Your task to perform on an android device: find snoozed emails in the gmail app Image 0: 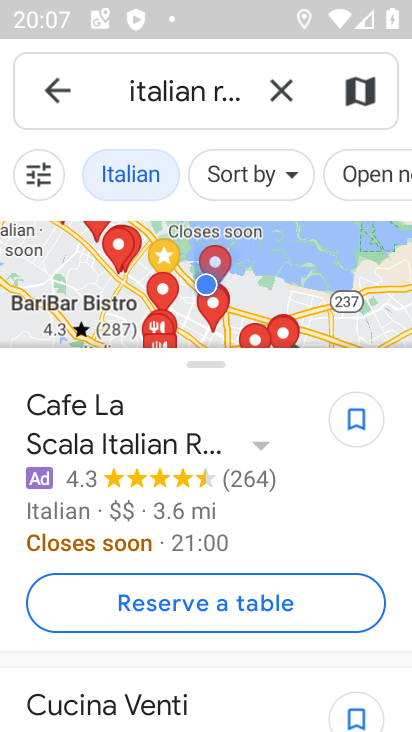
Step 0: press home button
Your task to perform on an android device: find snoozed emails in the gmail app Image 1: 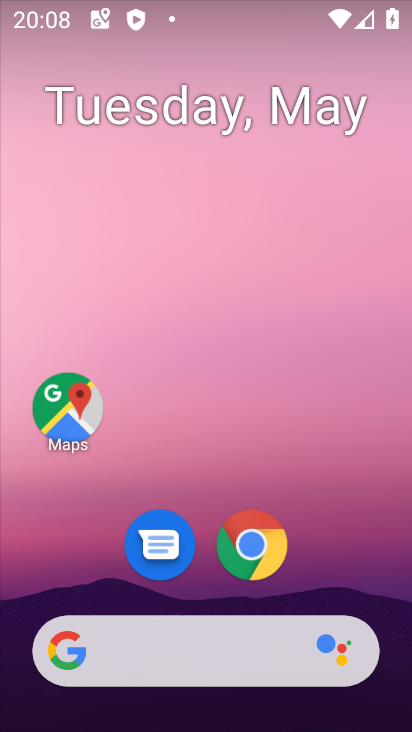
Step 1: drag from (324, 588) to (355, 108)
Your task to perform on an android device: find snoozed emails in the gmail app Image 2: 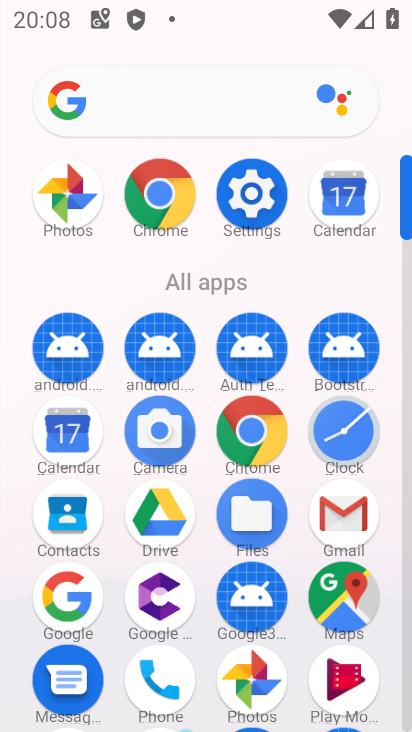
Step 2: click (334, 512)
Your task to perform on an android device: find snoozed emails in the gmail app Image 3: 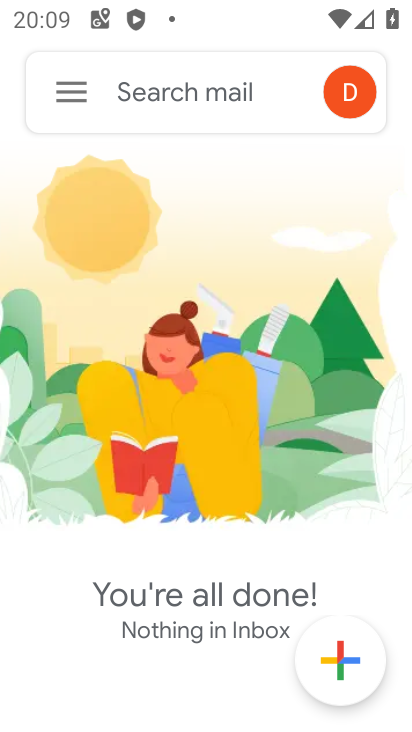
Step 3: click (77, 86)
Your task to perform on an android device: find snoozed emails in the gmail app Image 4: 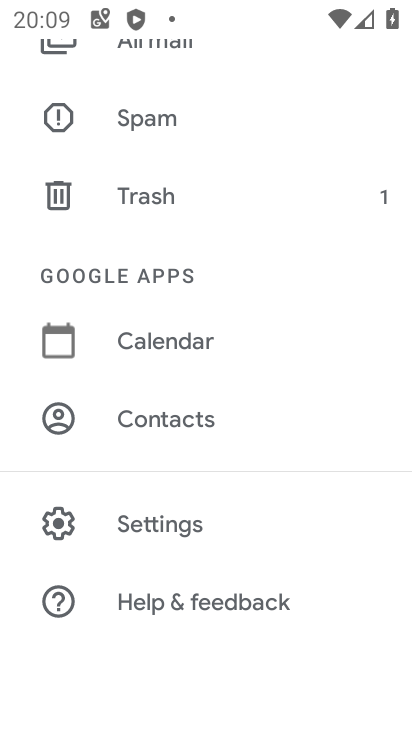
Step 4: drag from (214, 173) to (239, 553)
Your task to perform on an android device: find snoozed emails in the gmail app Image 5: 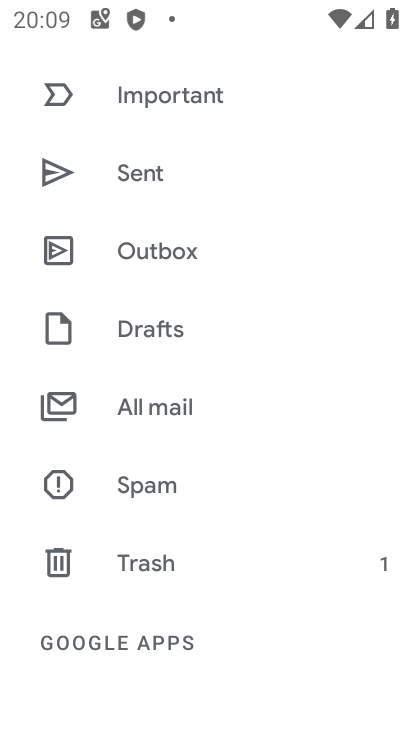
Step 5: drag from (250, 104) to (261, 532)
Your task to perform on an android device: find snoozed emails in the gmail app Image 6: 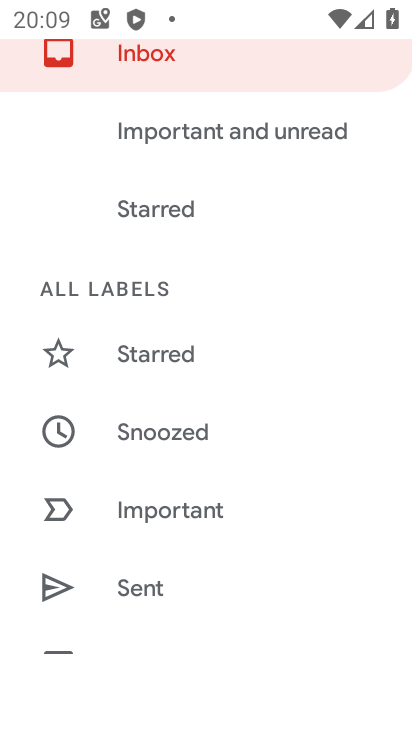
Step 6: drag from (207, 159) to (243, 462)
Your task to perform on an android device: find snoozed emails in the gmail app Image 7: 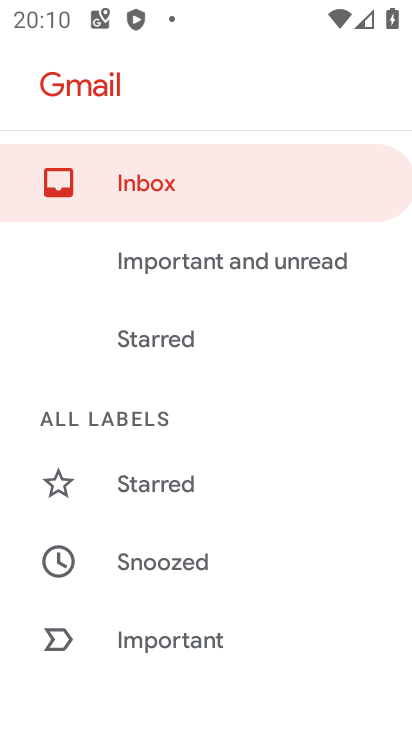
Step 7: click (186, 560)
Your task to perform on an android device: find snoozed emails in the gmail app Image 8: 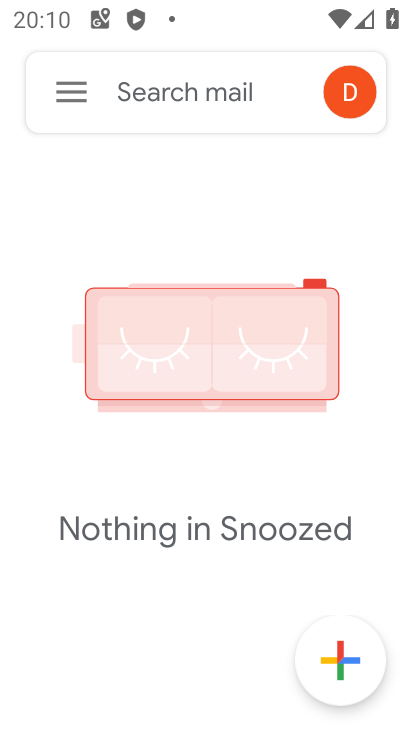
Step 8: task complete